Your task to perform on an android device: When is my next meeting? Image 0: 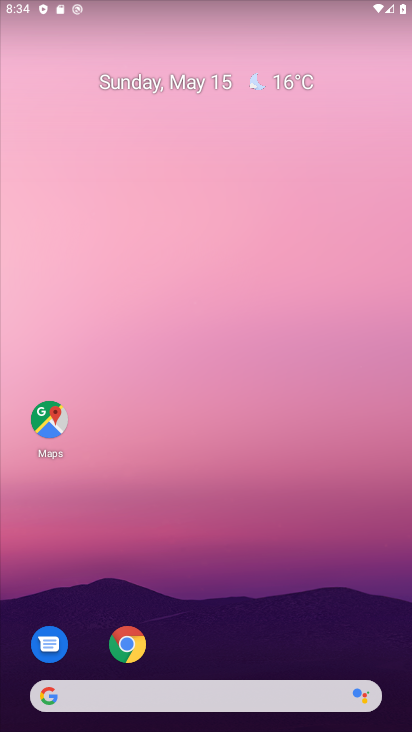
Step 0: drag from (254, 618) to (384, 91)
Your task to perform on an android device: When is my next meeting? Image 1: 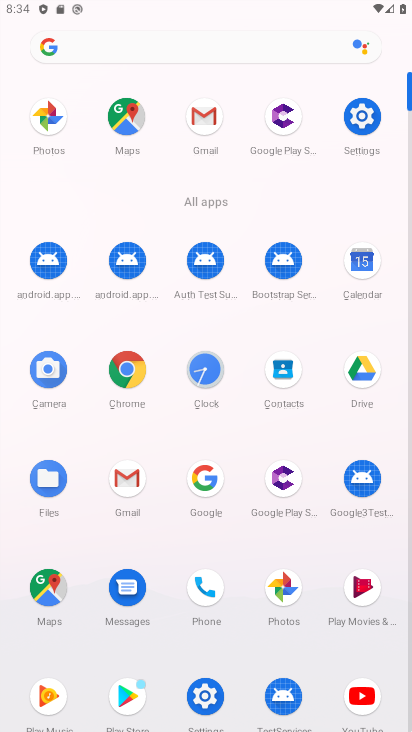
Step 1: click (362, 270)
Your task to perform on an android device: When is my next meeting? Image 2: 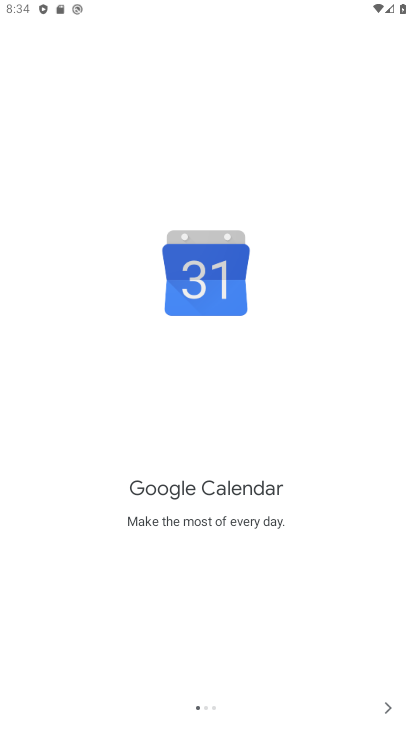
Step 2: click (382, 698)
Your task to perform on an android device: When is my next meeting? Image 3: 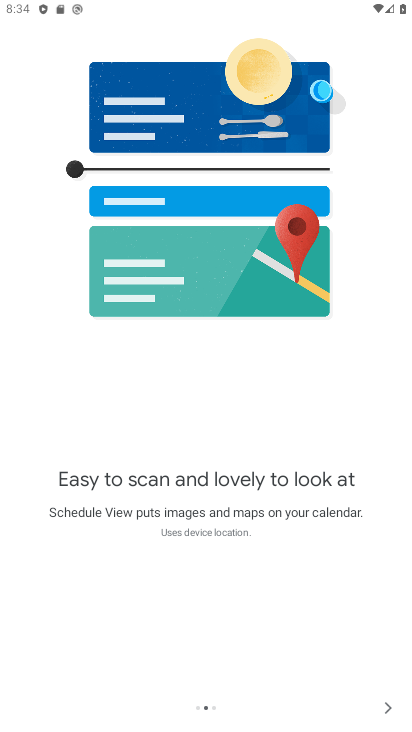
Step 3: click (382, 704)
Your task to perform on an android device: When is my next meeting? Image 4: 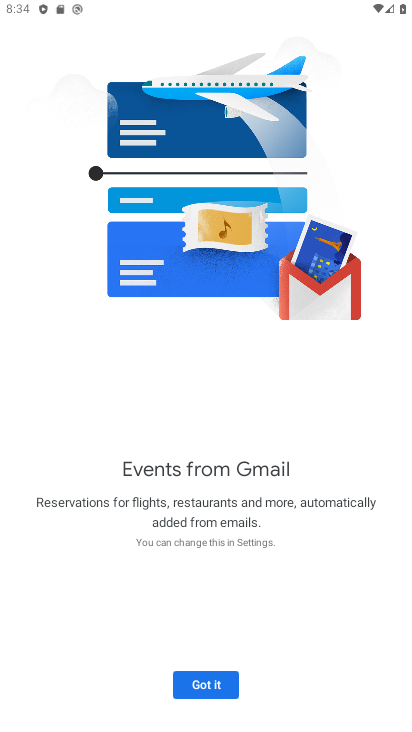
Step 4: click (220, 681)
Your task to perform on an android device: When is my next meeting? Image 5: 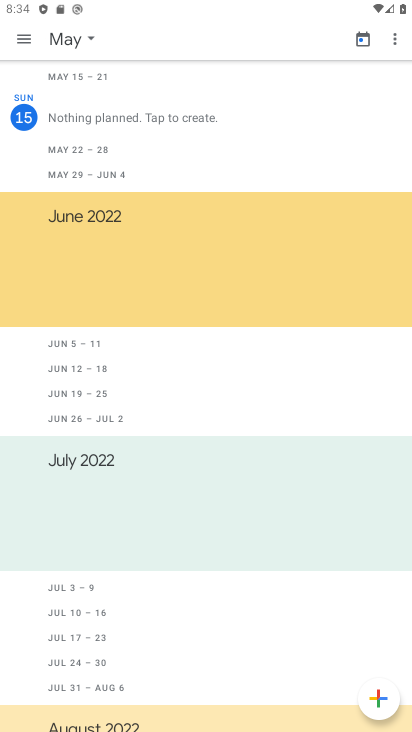
Step 5: click (21, 34)
Your task to perform on an android device: When is my next meeting? Image 6: 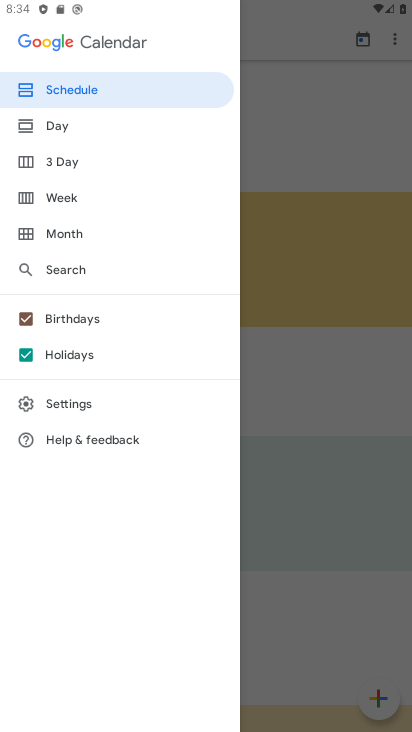
Step 6: click (113, 95)
Your task to perform on an android device: When is my next meeting? Image 7: 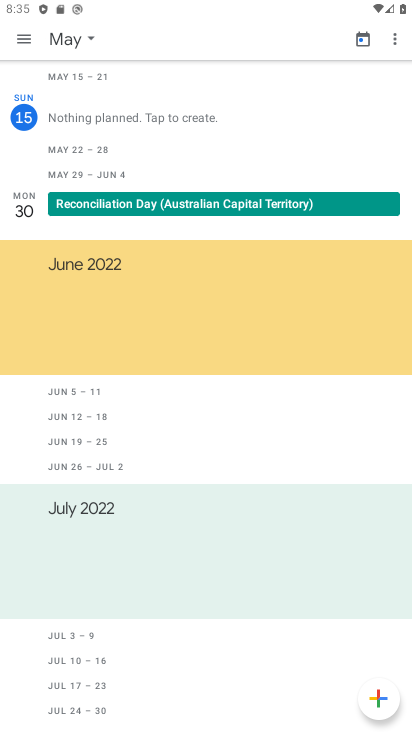
Step 7: click (22, 35)
Your task to perform on an android device: When is my next meeting? Image 8: 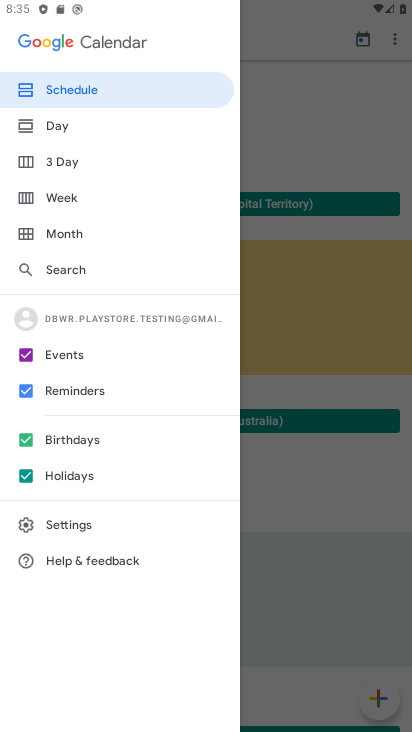
Step 8: click (87, 90)
Your task to perform on an android device: When is my next meeting? Image 9: 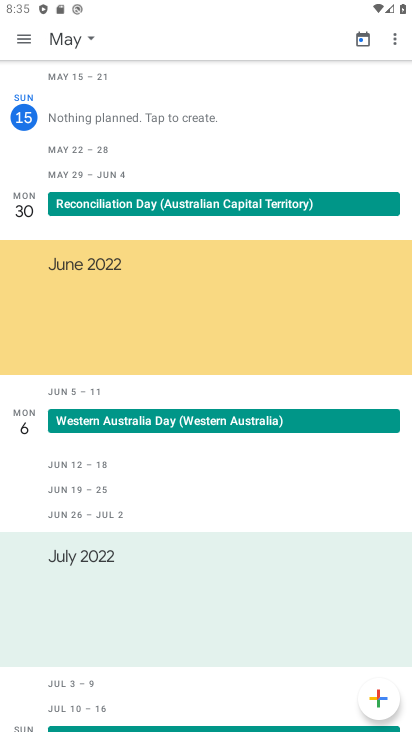
Step 9: drag from (248, 169) to (230, 503)
Your task to perform on an android device: When is my next meeting? Image 10: 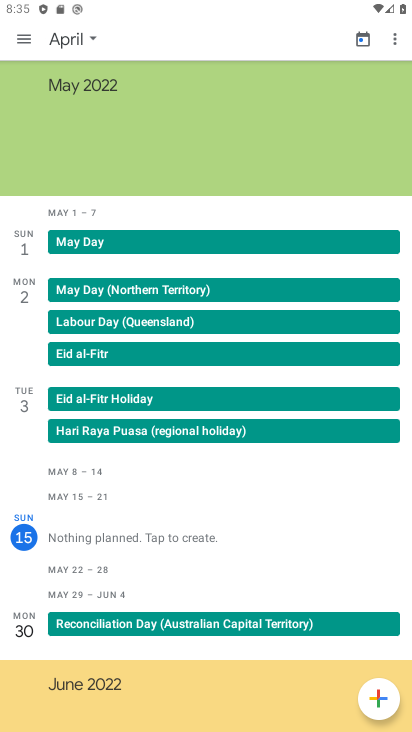
Step 10: drag from (222, 553) to (261, 321)
Your task to perform on an android device: When is my next meeting? Image 11: 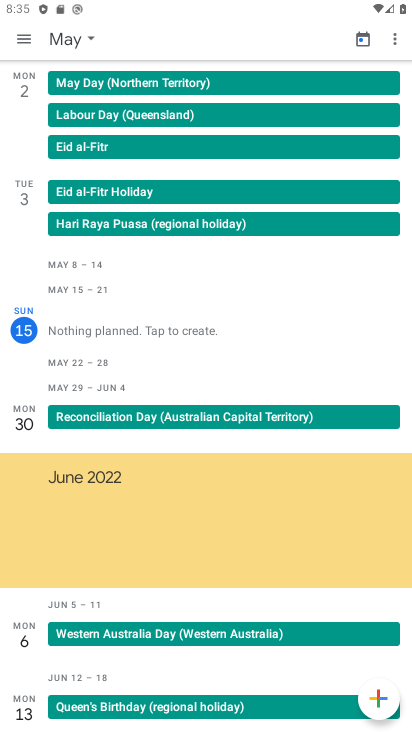
Step 11: drag from (250, 226) to (243, 262)
Your task to perform on an android device: When is my next meeting? Image 12: 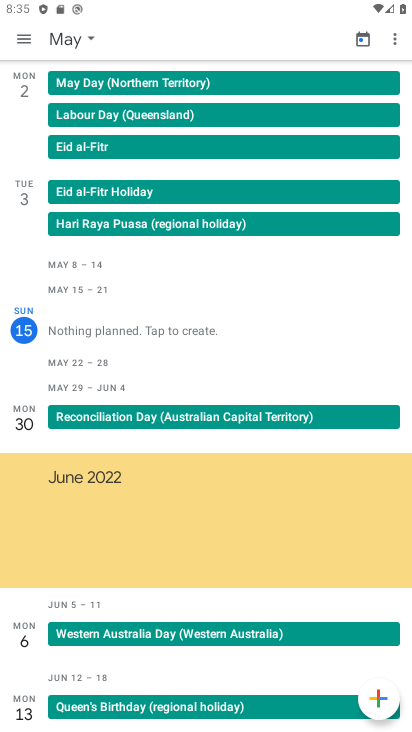
Step 12: drag from (210, 158) to (171, 587)
Your task to perform on an android device: When is my next meeting? Image 13: 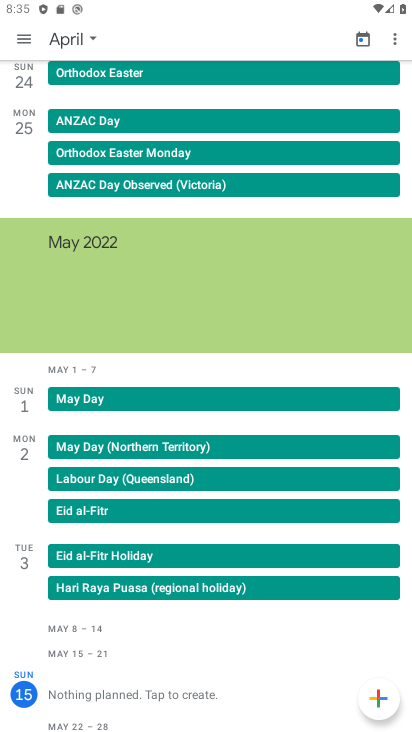
Step 13: click (66, 35)
Your task to perform on an android device: When is my next meeting? Image 14: 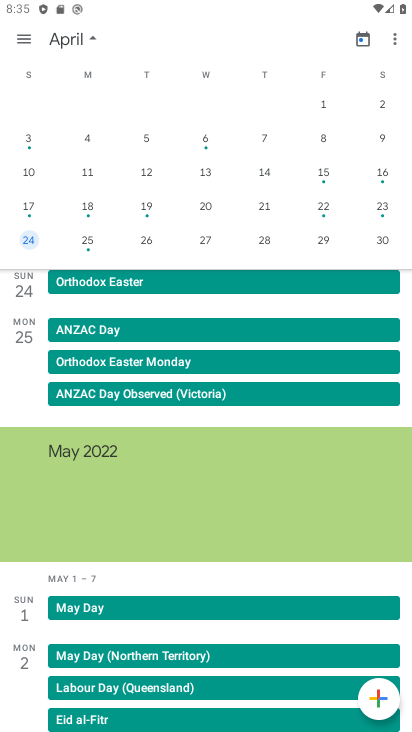
Step 14: drag from (382, 191) to (1, 203)
Your task to perform on an android device: When is my next meeting? Image 15: 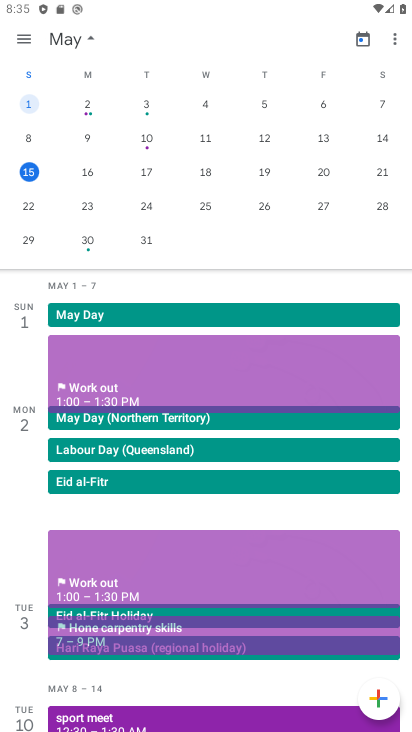
Step 15: click (90, 172)
Your task to perform on an android device: When is my next meeting? Image 16: 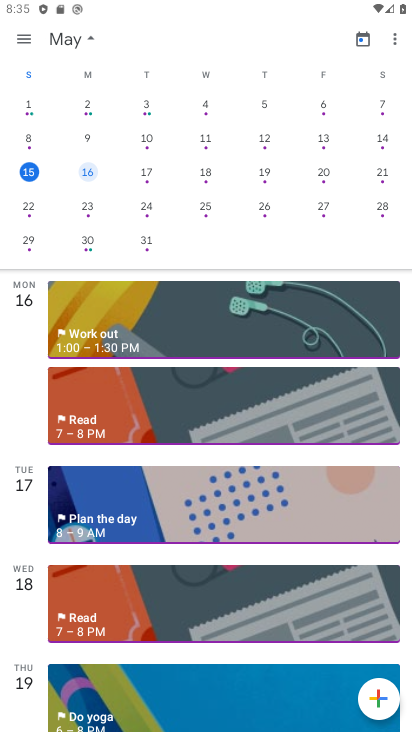
Step 16: task complete